Your task to perform on an android device: turn on data saver in the chrome app Image 0: 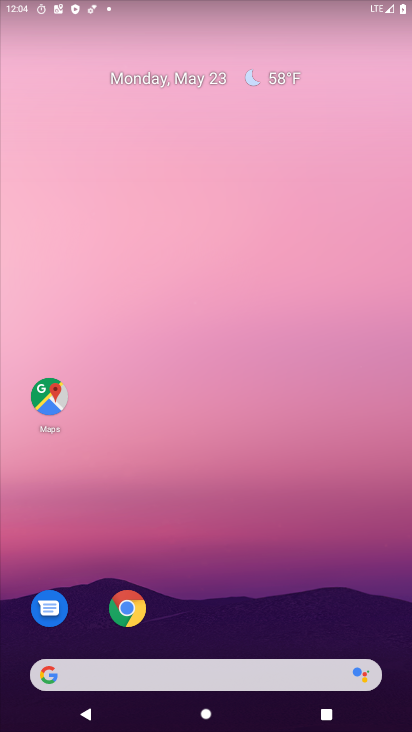
Step 0: drag from (216, 625) to (187, 165)
Your task to perform on an android device: turn on data saver in the chrome app Image 1: 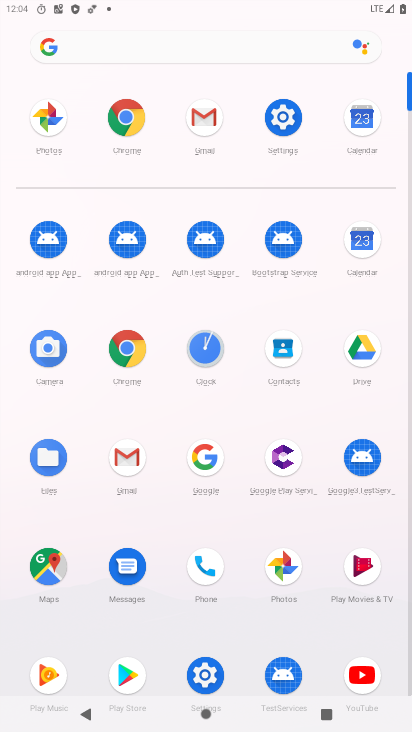
Step 1: click (115, 127)
Your task to perform on an android device: turn on data saver in the chrome app Image 2: 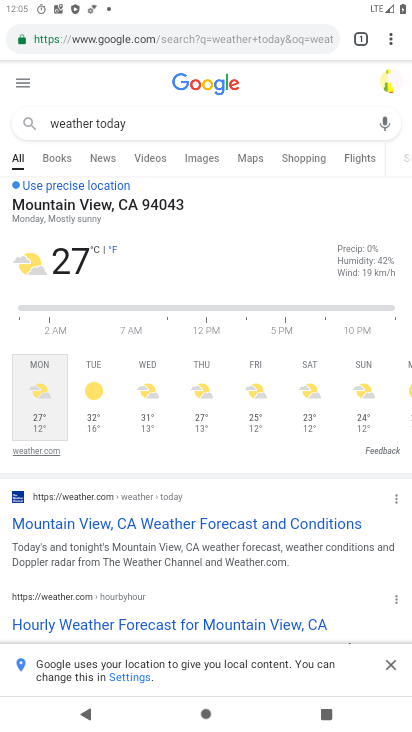
Step 2: click (396, 36)
Your task to perform on an android device: turn on data saver in the chrome app Image 3: 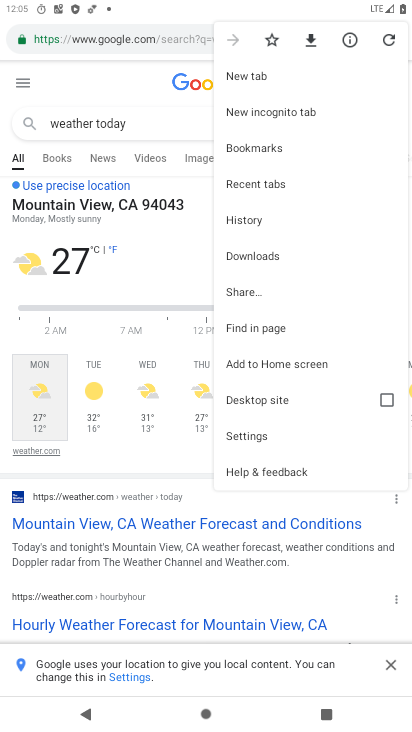
Step 3: click (298, 443)
Your task to perform on an android device: turn on data saver in the chrome app Image 4: 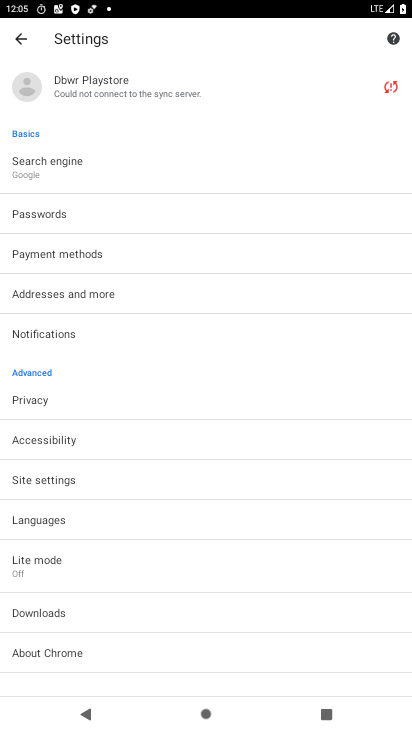
Step 4: click (306, 553)
Your task to perform on an android device: turn on data saver in the chrome app Image 5: 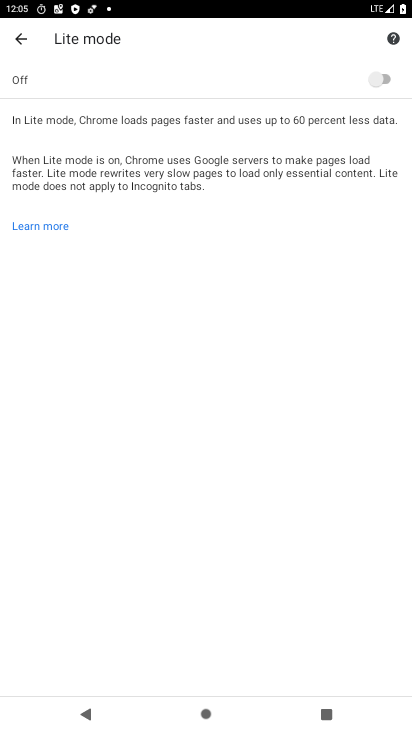
Step 5: click (376, 75)
Your task to perform on an android device: turn on data saver in the chrome app Image 6: 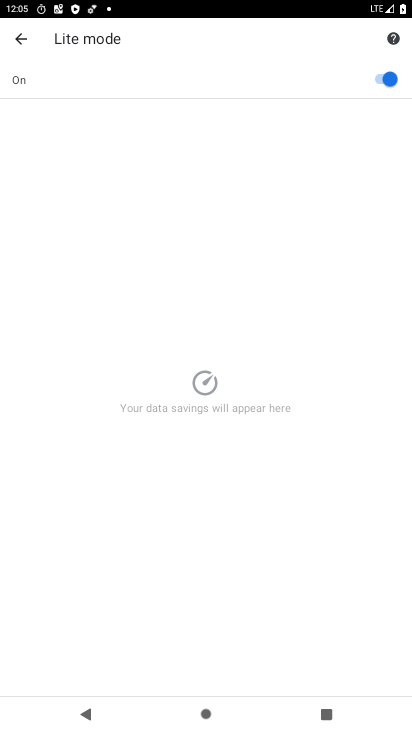
Step 6: task complete